Your task to perform on an android device: Show me recent news Image 0: 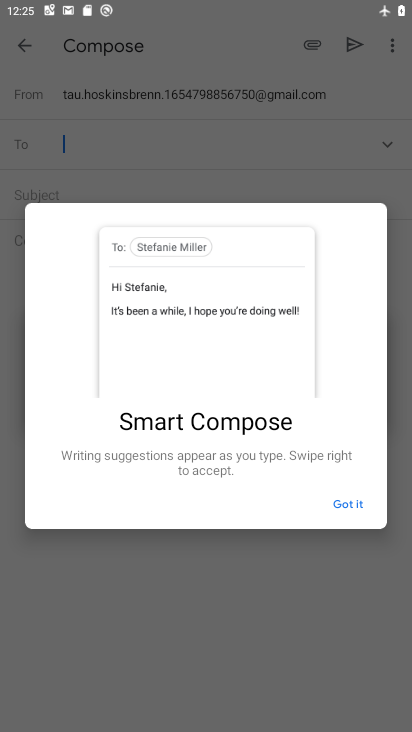
Step 0: click (346, 506)
Your task to perform on an android device: Show me recent news Image 1: 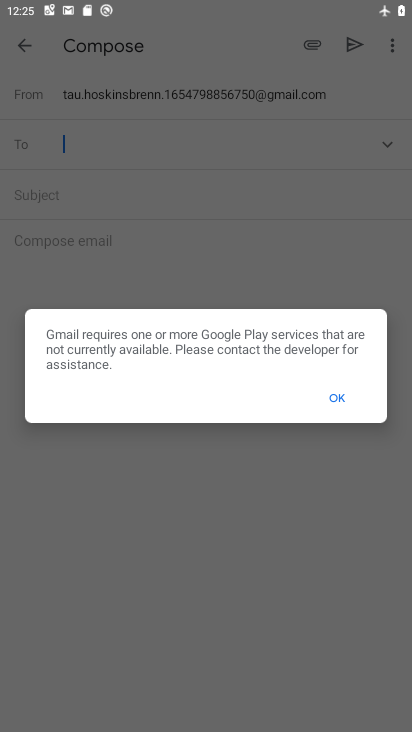
Step 1: click (341, 394)
Your task to perform on an android device: Show me recent news Image 2: 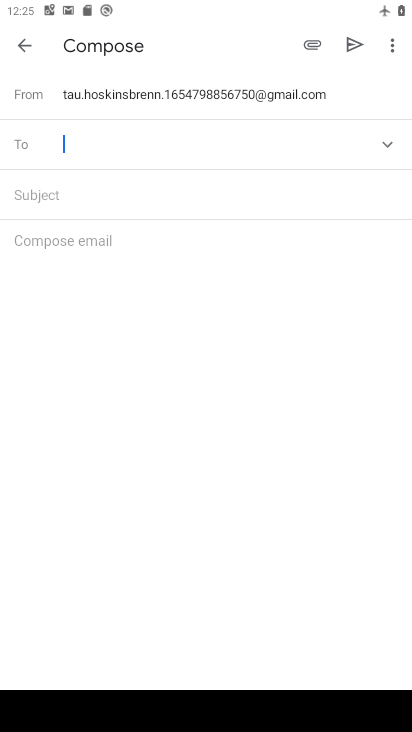
Step 2: press home button
Your task to perform on an android device: Show me recent news Image 3: 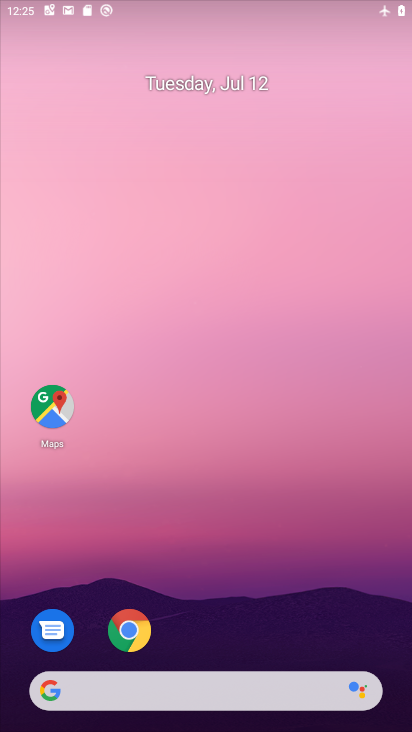
Step 3: drag from (213, 699) to (228, 356)
Your task to perform on an android device: Show me recent news Image 4: 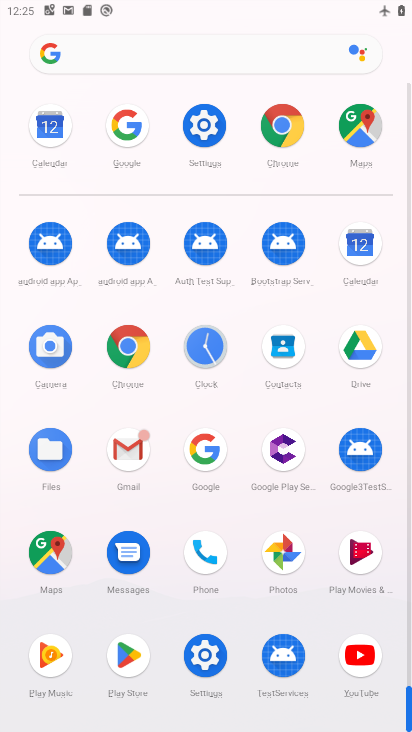
Step 4: click (204, 449)
Your task to perform on an android device: Show me recent news Image 5: 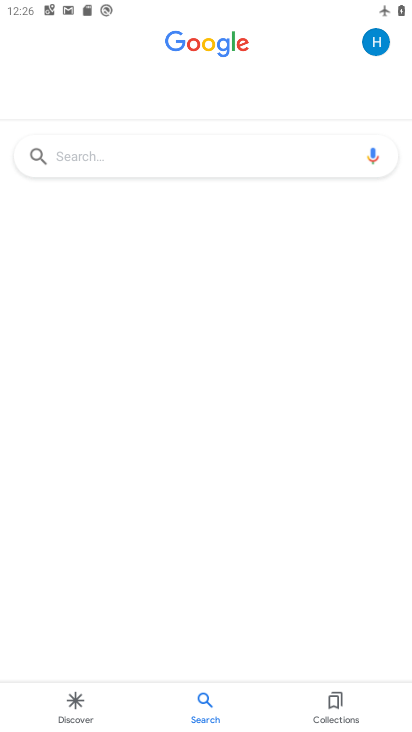
Step 5: click (222, 148)
Your task to perform on an android device: Show me recent news Image 6: 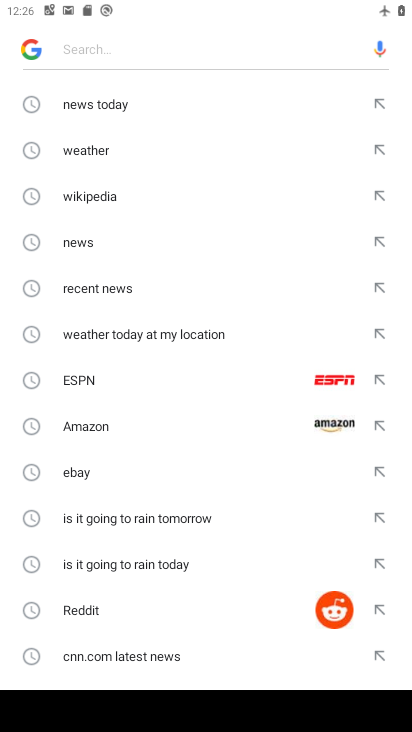
Step 6: click (108, 107)
Your task to perform on an android device: Show me recent news Image 7: 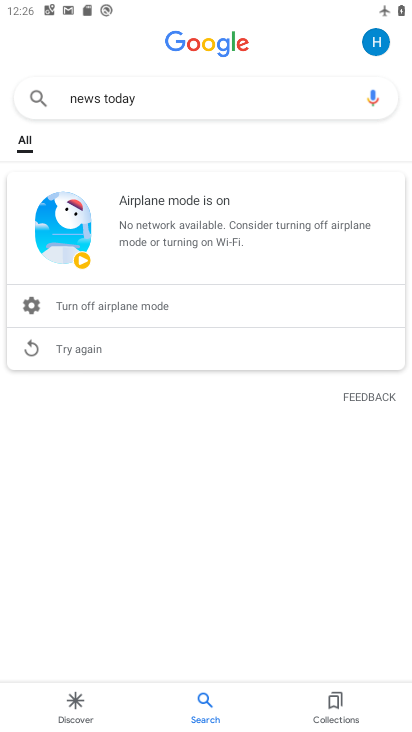
Step 7: task complete